Your task to perform on an android device: Open Reddit.com Image 0: 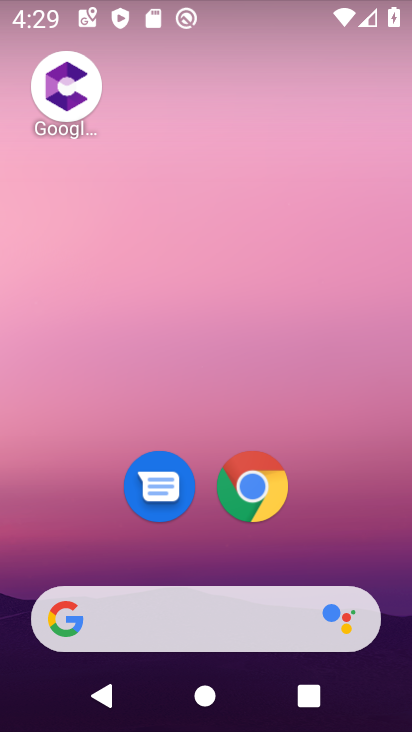
Step 0: click (256, 504)
Your task to perform on an android device: Open Reddit.com Image 1: 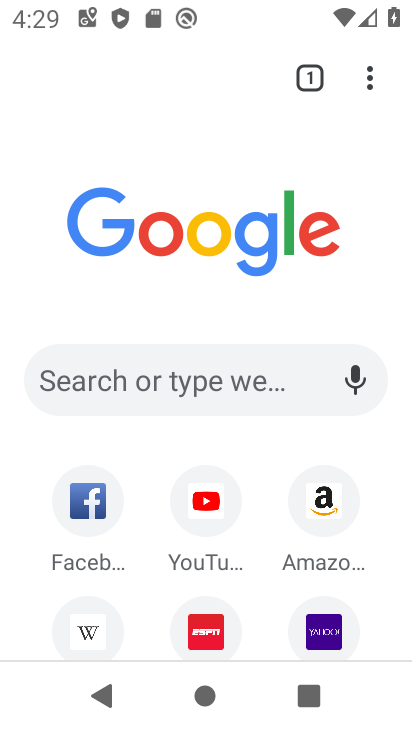
Step 1: click (263, 403)
Your task to perform on an android device: Open Reddit.com Image 2: 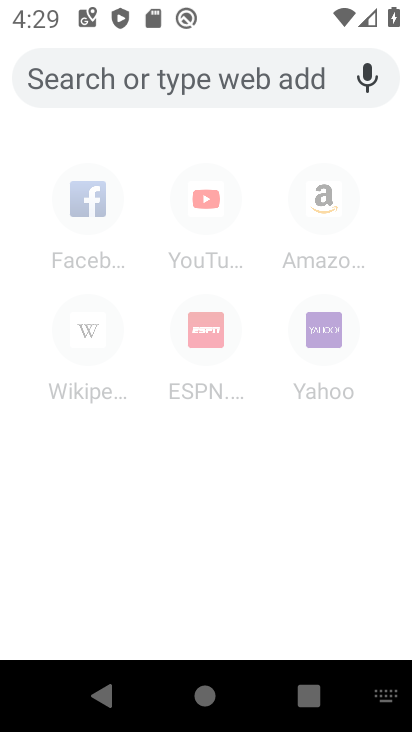
Step 2: type "Reddit.com"
Your task to perform on an android device: Open Reddit.com Image 3: 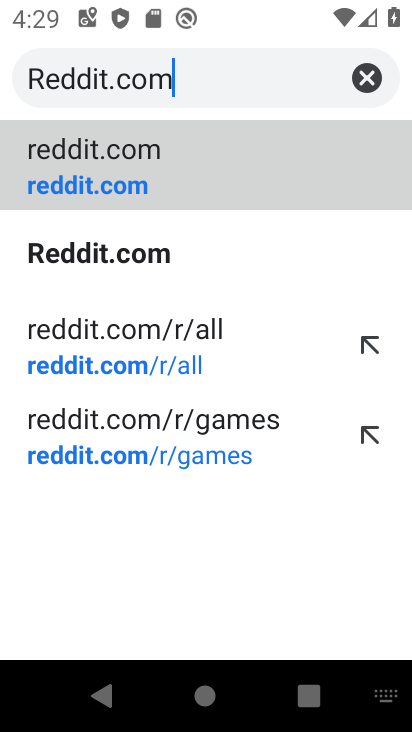
Step 3: click (109, 189)
Your task to perform on an android device: Open Reddit.com Image 4: 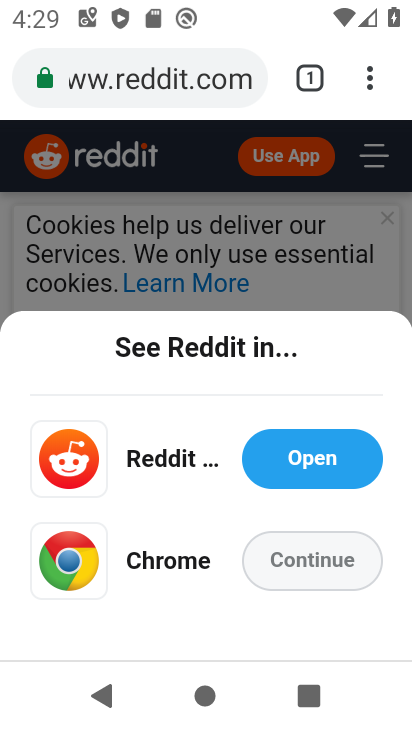
Step 4: click (337, 567)
Your task to perform on an android device: Open Reddit.com Image 5: 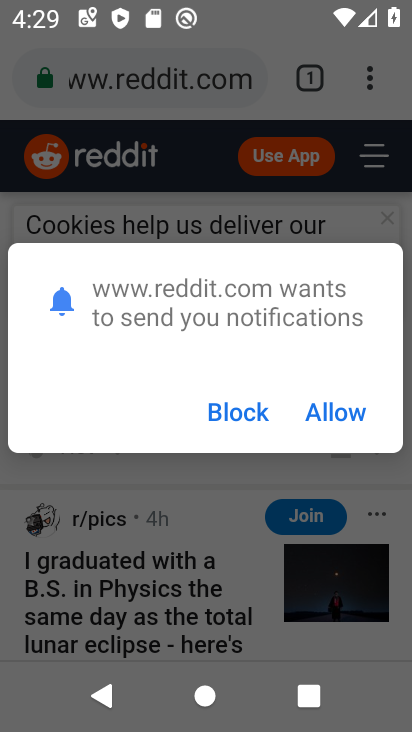
Step 5: click (214, 412)
Your task to perform on an android device: Open Reddit.com Image 6: 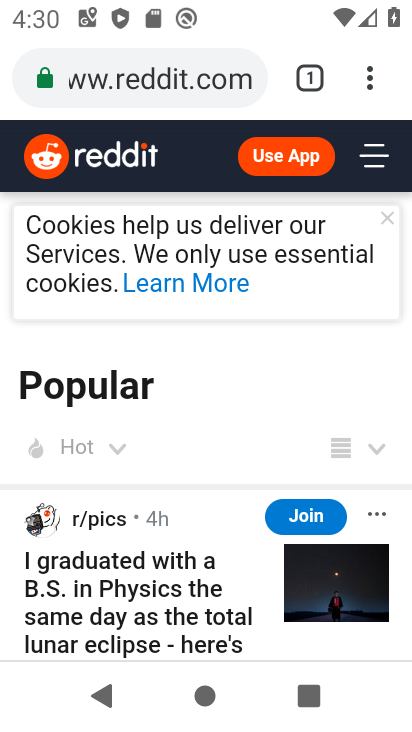
Step 6: task complete